Your task to perform on an android device: Open privacy settings Image 0: 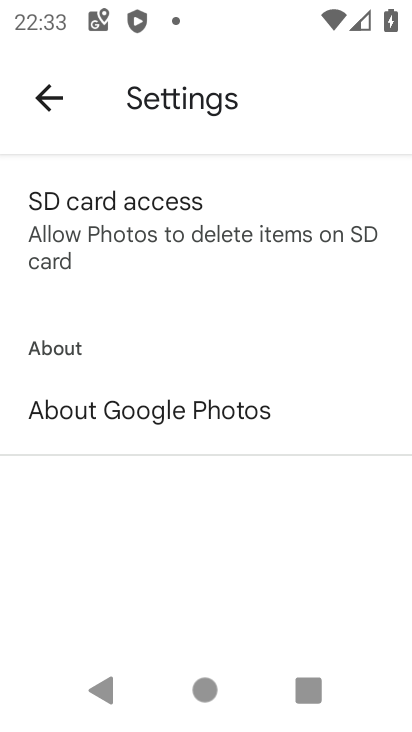
Step 0: press home button
Your task to perform on an android device: Open privacy settings Image 1: 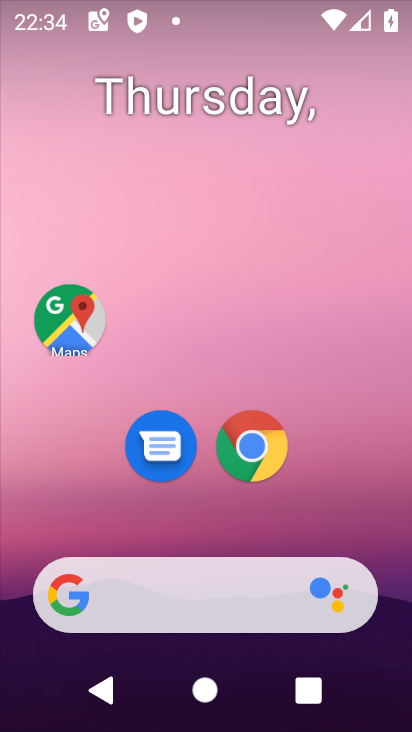
Step 1: drag from (388, 539) to (357, 77)
Your task to perform on an android device: Open privacy settings Image 2: 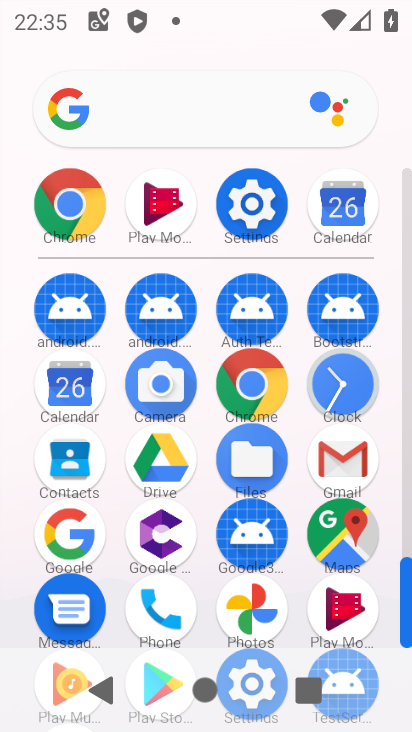
Step 2: click (255, 213)
Your task to perform on an android device: Open privacy settings Image 3: 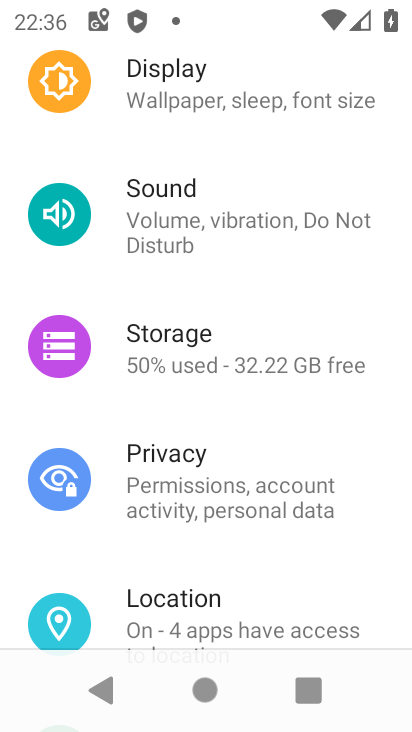
Step 3: click (216, 490)
Your task to perform on an android device: Open privacy settings Image 4: 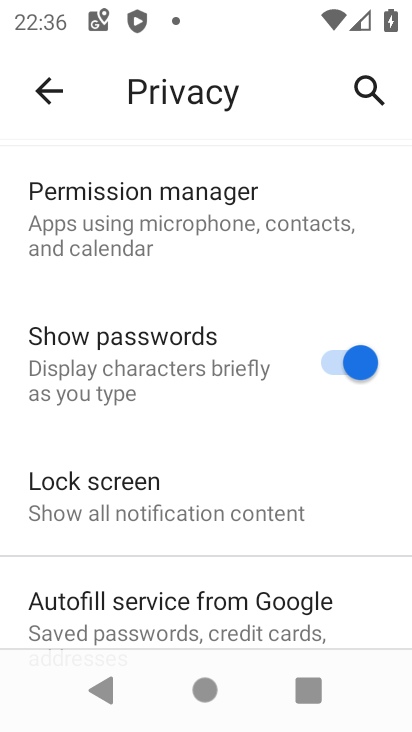
Step 4: task complete